Your task to perform on an android device: Is it going to rain this weekend? Image 0: 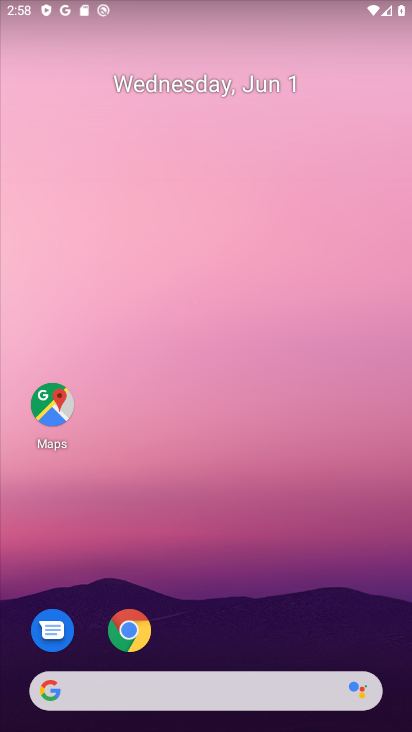
Step 0: drag from (257, 495) to (295, 53)
Your task to perform on an android device: Is it going to rain this weekend? Image 1: 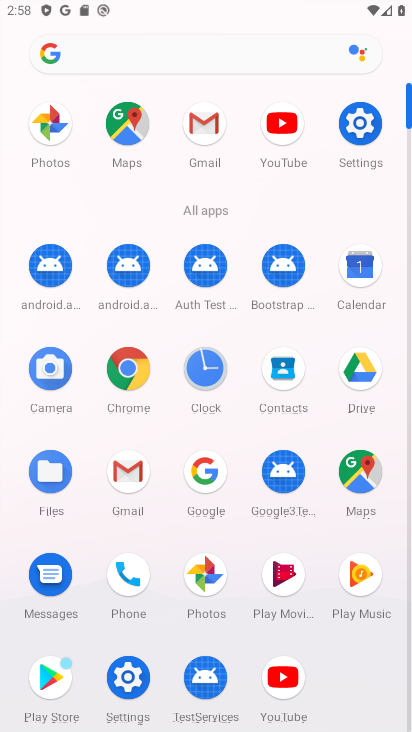
Step 1: click (149, 58)
Your task to perform on an android device: Is it going to rain this weekend? Image 2: 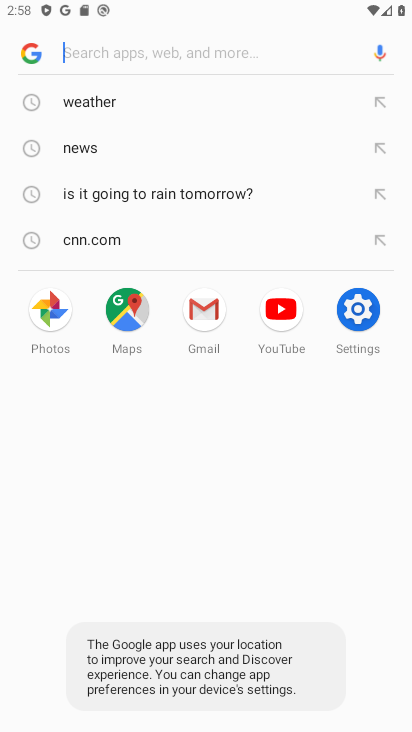
Step 2: click (116, 104)
Your task to perform on an android device: Is it going to rain this weekend? Image 3: 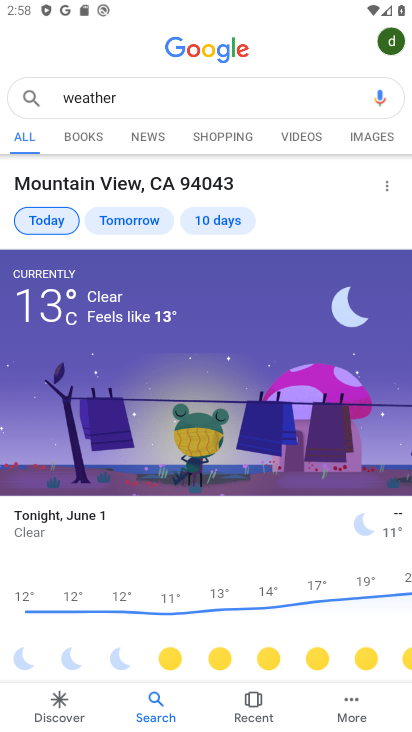
Step 3: click (220, 224)
Your task to perform on an android device: Is it going to rain this weekend? Image 4: 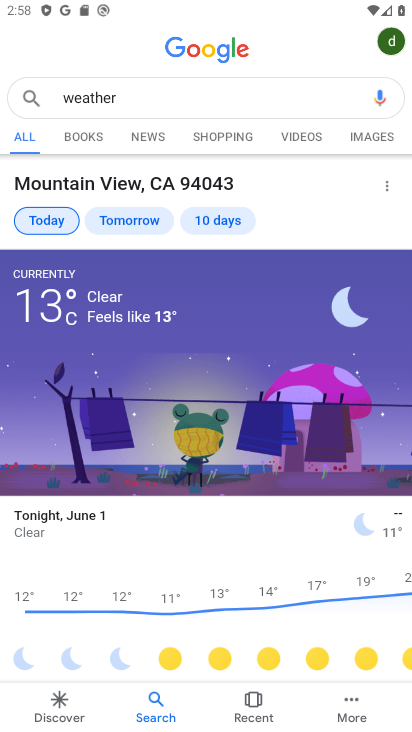
Step 4: click (211, 218)
Your task to perform on an android device: Is it going to rain this weekend? Image 5: 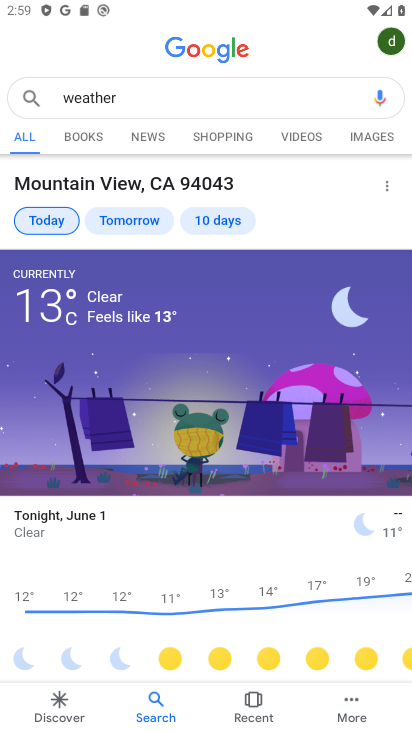
Step 5: task complete